Your task to perform on an android device: make emails show in primary in the gmail app Image 0: 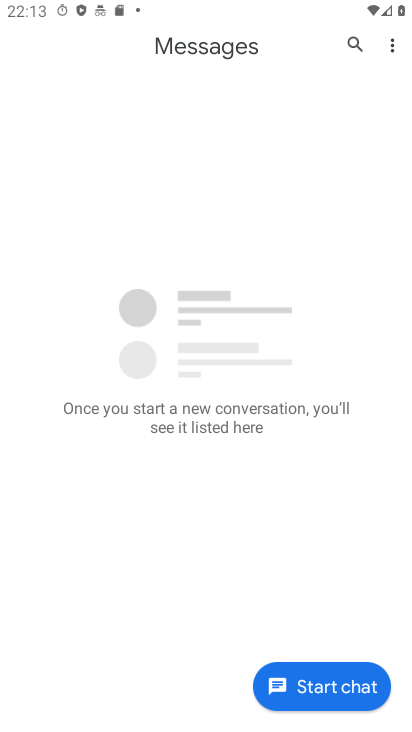
Step 0: press back button
Your task to perform on an android device: make emails show in primary in the gmail app Image 1: 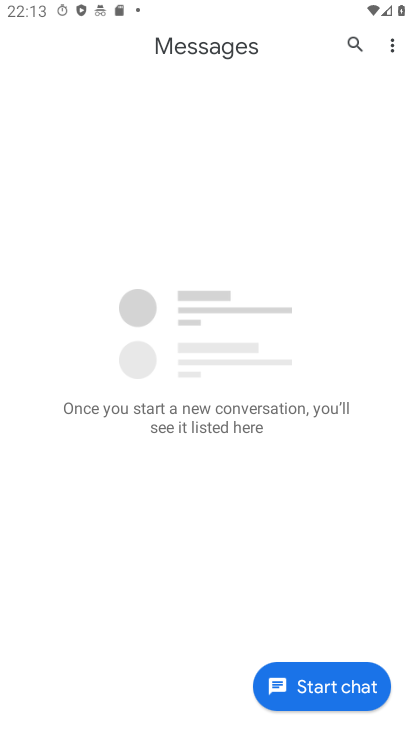
Step 1: press back button
Your task to perform on an android device: make emails show in primary in the gmail app Image 2: 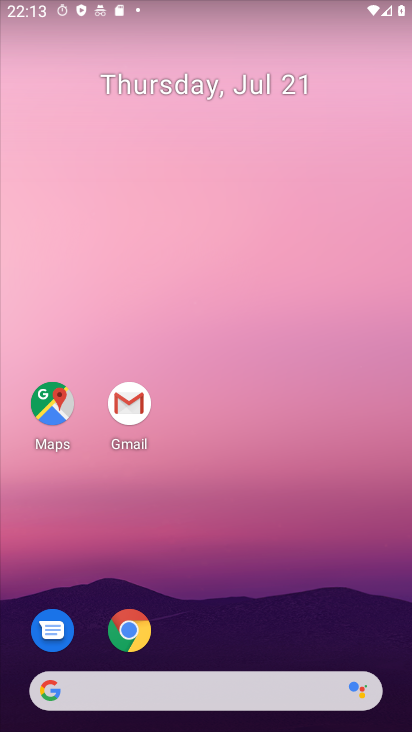
Step 2: drag from (258, 656) to (183, 9)
Your task to perform on an android device: make emails show in primary in the gmail app Image 3: 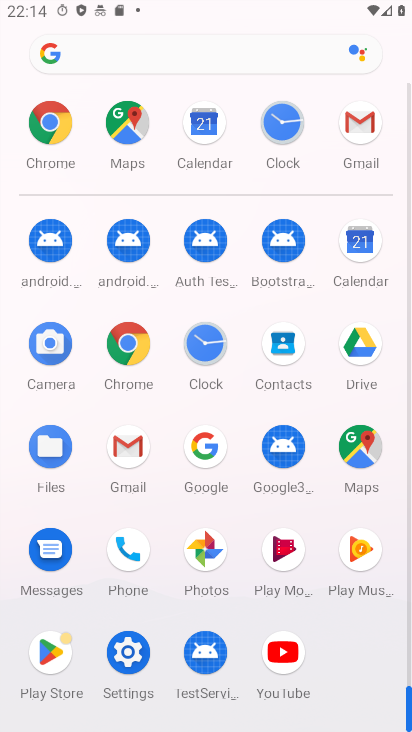
Step 3: click (120, 461)
Your task to perform on an android device: make emails show in primary in the gmail app Image 4: 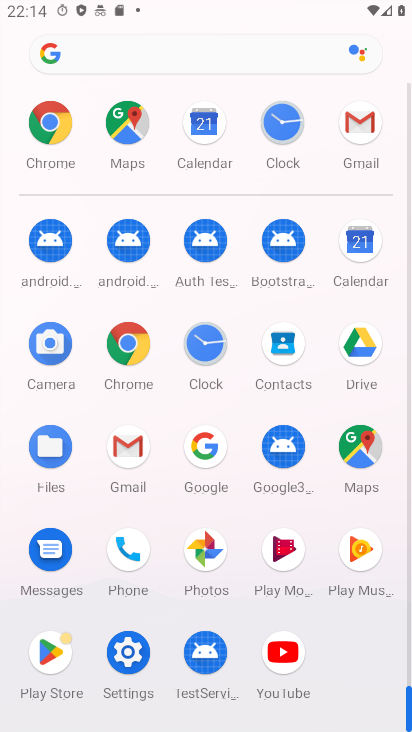
Step 4: click (129, 455)
Your task to perform on an android device: make emails show in primary in the gmail app Image 5: 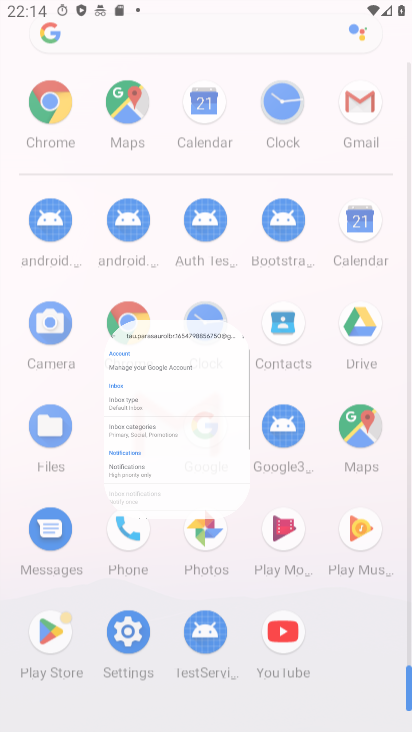
Step 5: click (132, 452)
Your task to perform on an android device: make emails show in primary in the gmail app Image 6: 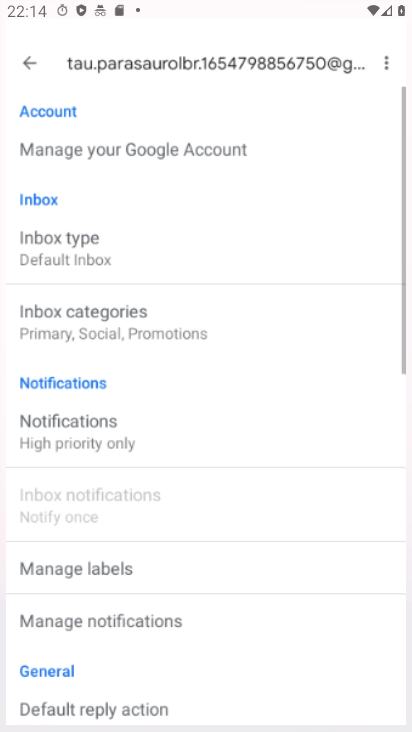
Step 6: click (129, 451)
Your task to perform on an android device: make emails show in primary in the gmail app Image 7: 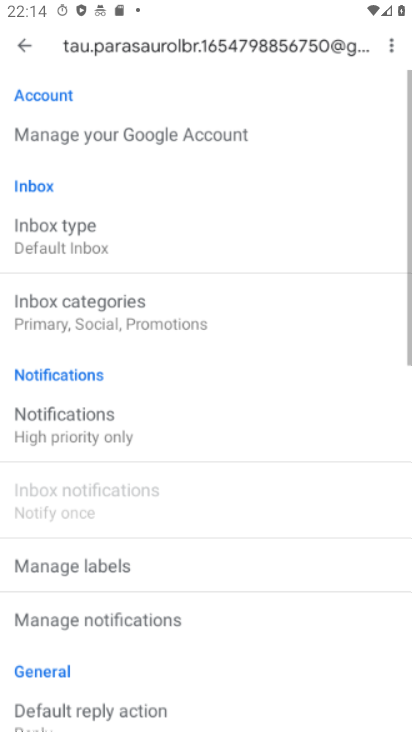
Step 7: click (126, 443)
Your task to perform on an android device: make emails show in primary in the gmail app Image 8: 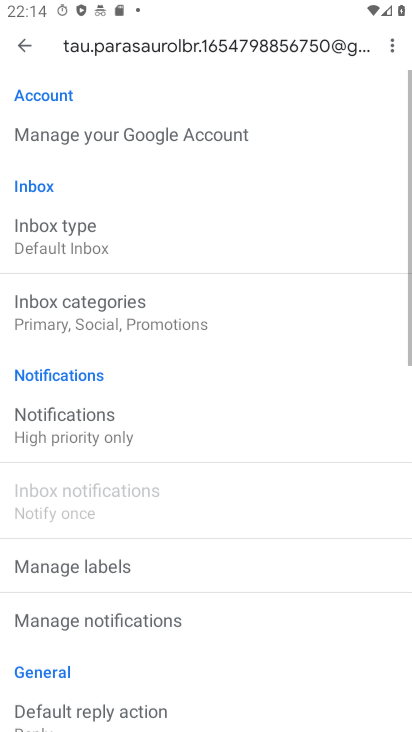
Step 8: click (126, 441)
Your task to perform on an android device: make emails show in primary in the gmail app Image 9: 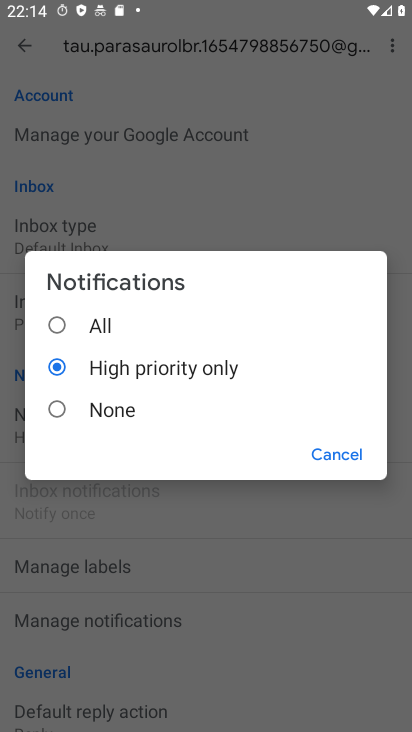
Step 9: click (334, 455)
Your task to perform on an android device: make emails show in primary in the gmail app Image 10: 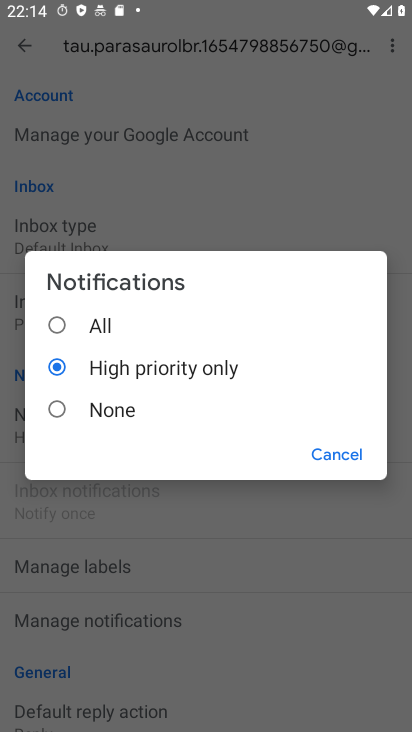
Step 10: click (334, 454)
Your task to perform on an android device: make emails show in primary in the gmail app Image 11: 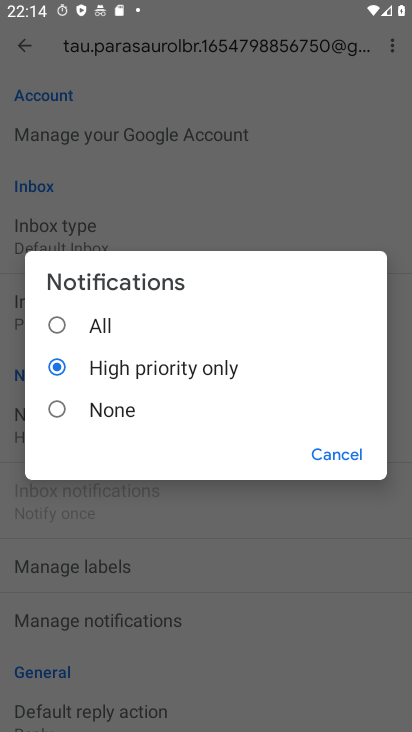
Step 11: click (327, 451)
Your task to perform on an android device: make emails show in primary in the gmail app Image 12: 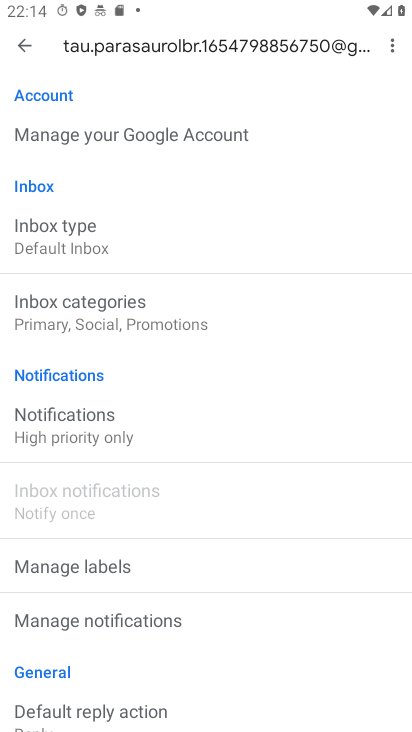
Step 12: click (45, 254)
Your task to perform on an android device: make emails show in primary in the gmail app Image 13: 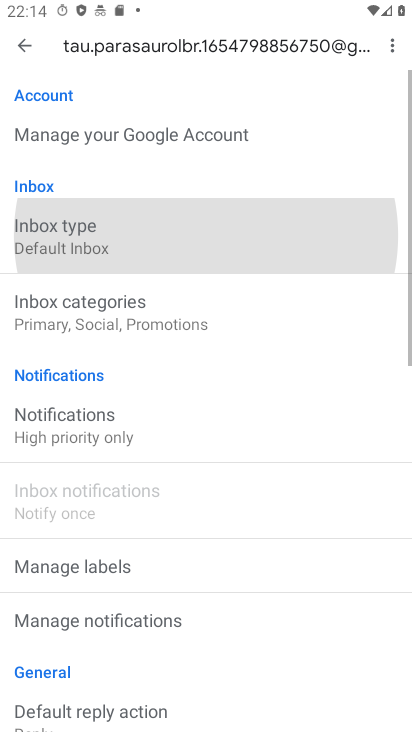
Step 13: click (47, 251)
Your task to perform on an android device: make emails show in primary in the gmail app Image 14: 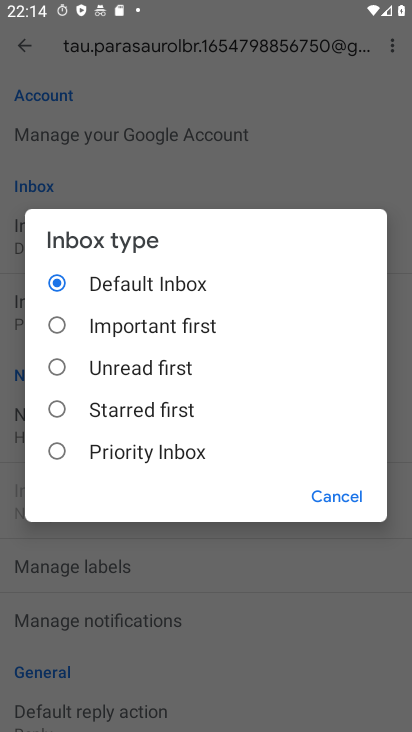
Step 14: click (339, 493)
Your task to perform on an android device: make emails show in primary in the gmail app Image 15: 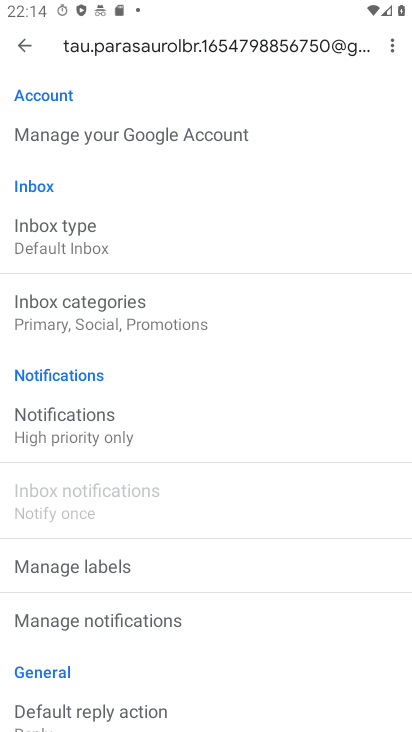
Step 15: task complete